Your task to perform on an android device: toggle improve location accuracy Image 0: 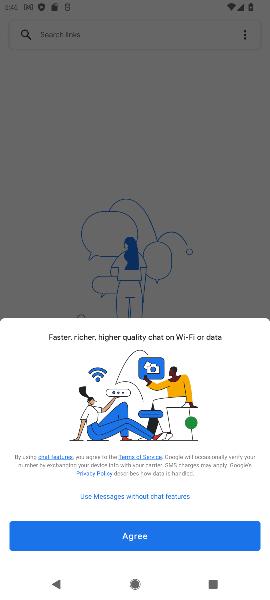
Step 0: press home button
Your task to perform on an android device: toggle improve location accuracy Image 1: 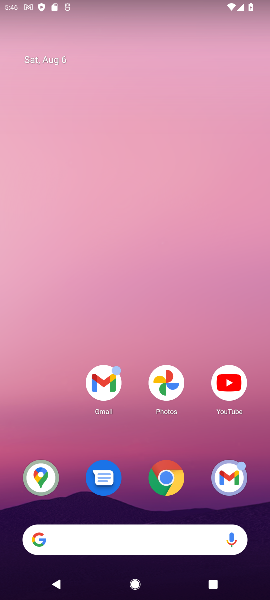
Step 1: drag from (98, 511) to (127, 124)
Your task to perform on an android device: toggle improve location accuracy Image 2: 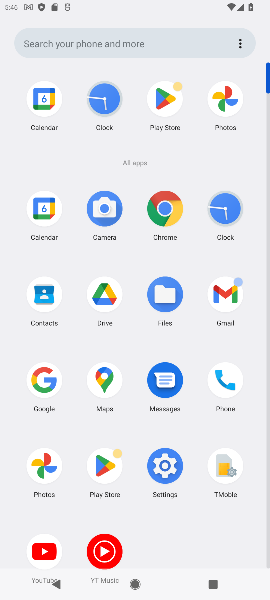
Step 2: click (173, 476)
Your task to perform on an android device: toggle improve location accuracy Image 3: 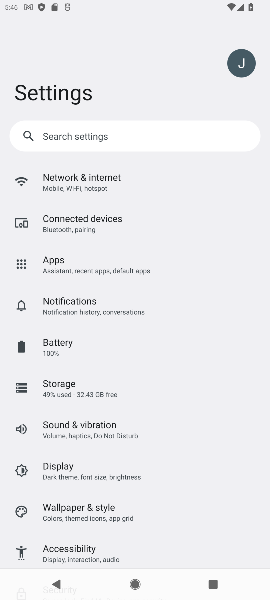
Step 3: drag from (202, 488) to (161, 164)
Your task to perform on an android device: toggle improve location accuracy Image 4: 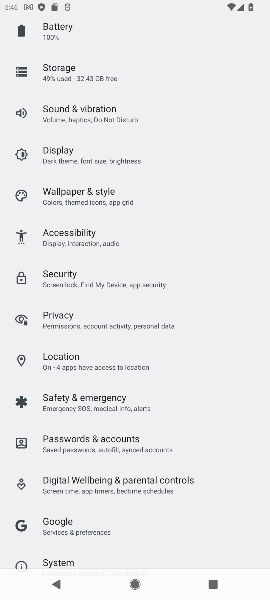
Step 4: click (57, 359)
Your task to perform on an android device: toggle improve location accuracy Image 5: 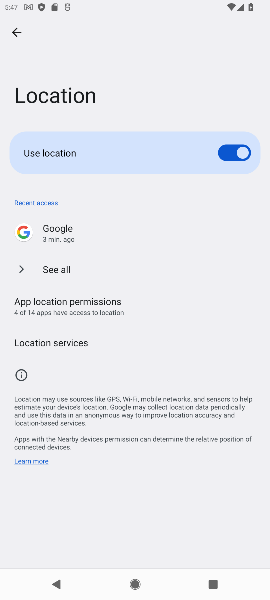
Step 5: click (67, 343)
Your task to perform on an android device: toggle improve location accuracy Image 6: 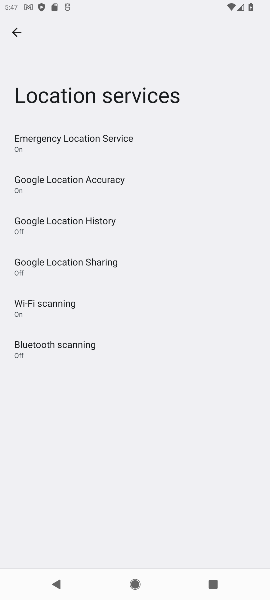
Step 6: click (81, 185)
Your task to perform on an android device: toggle improve location accuracy Image 7: 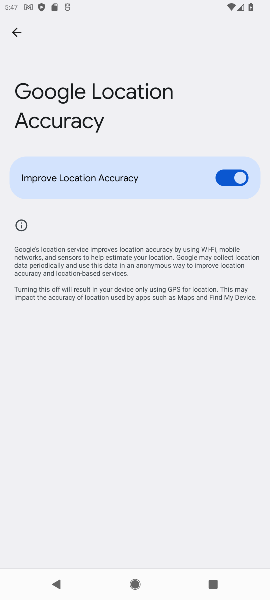
Step 7: click (241, 177)
Your task to perform on an android device: toggle improve location accuracy Image 8: 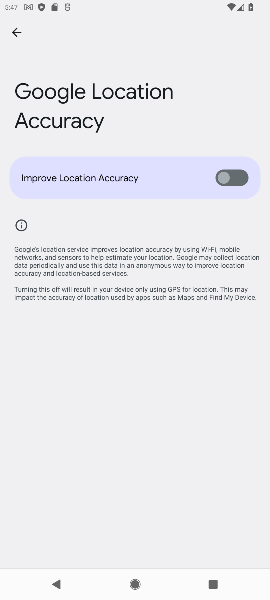
Step 8: task complete